Your task to perform on an android device: Go to ESPN.com Image 0: 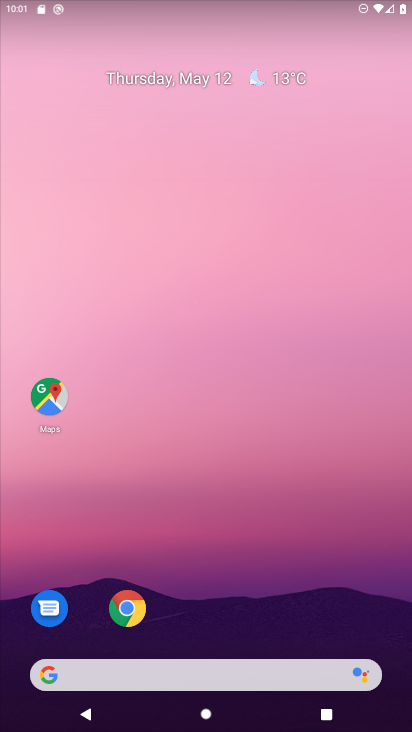
Step 0: drag from (245, 609) to (203, 124)
Your task to perform on an android device: Go to ESPN.com Image 1: 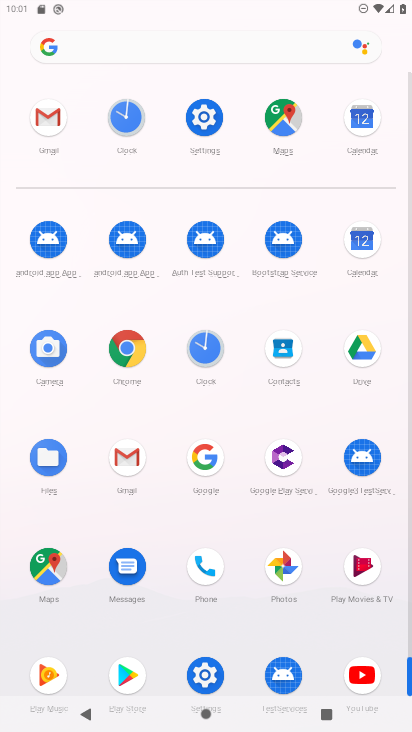
Step 1: click (198, 464)
Your task to perform on an android device: Go to ESPN.com Image 2: 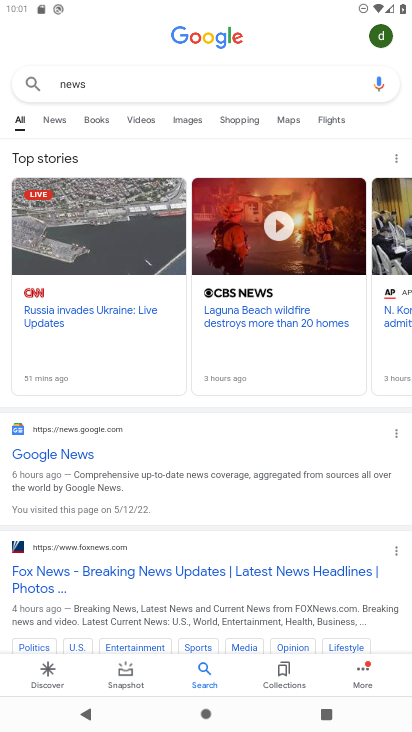
Step 2: click (150, 72)
Your task to perform on an android device: Go to ESPN.com Image 3: 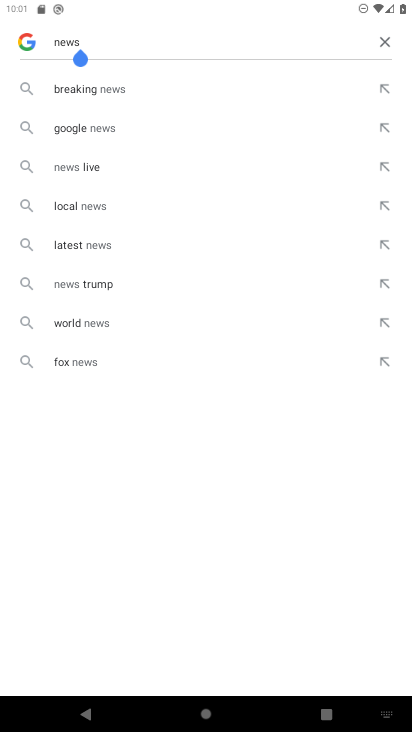
Step 3: click (383, 41)
Your task to perform on an android device: Go to ESPN.com Image 4: 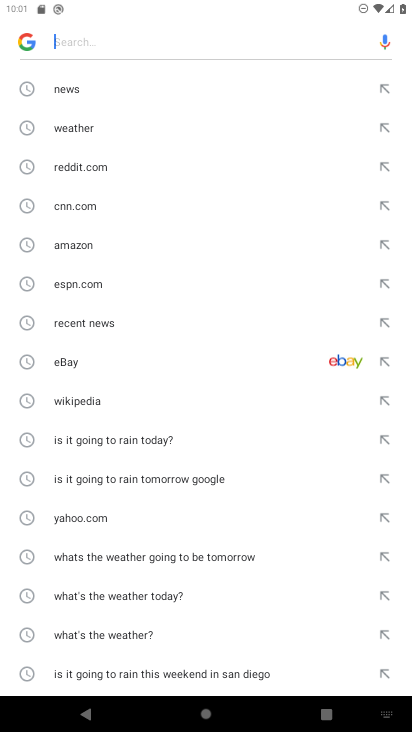
Step 4: click (85, 283)
Your task to perform on an android device: Go to ESPN.com Image 5: 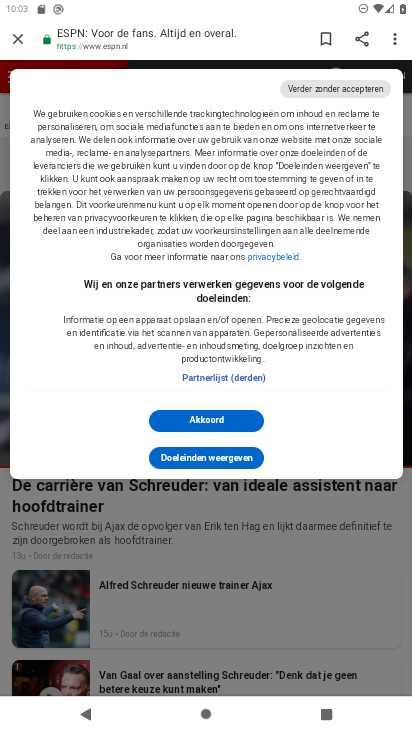
Step 5: task complete